Your task to perform on an android device: What is the recent news? Image 0: 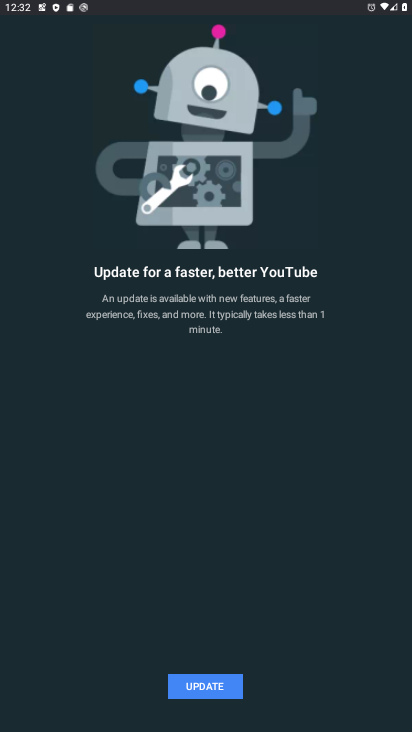
Step 0: press home button
Your task to perform on an android device: What is the recent news? Image 1: 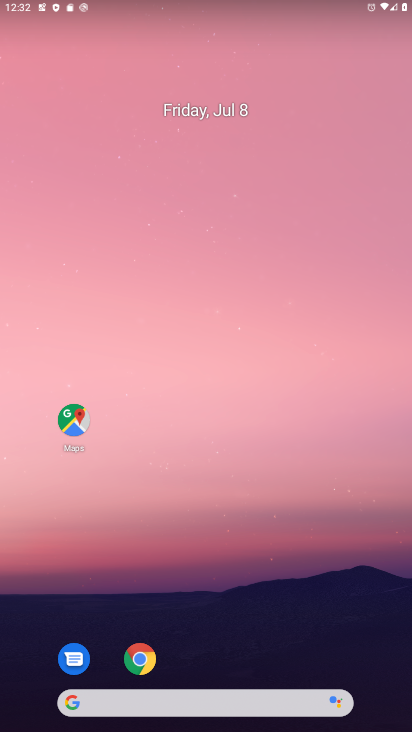
Step 1: task complete